Your task to perform on an android device: Toggle the flashlight Image 0: 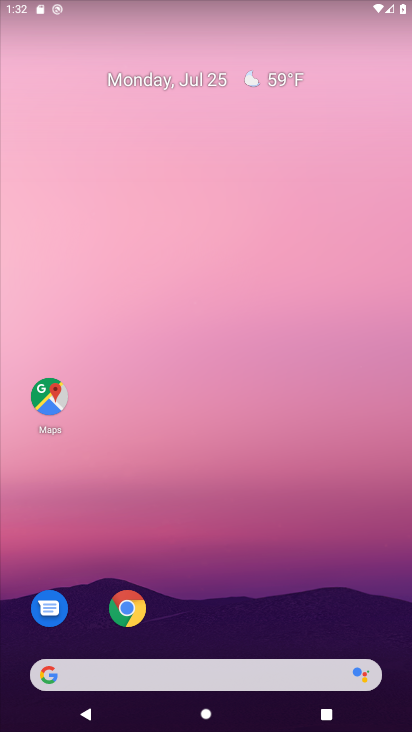
Step 0: drag from (223, 12) to (209, 485)
Your task to perform on an android device: Toggle the flashlight Image 1: 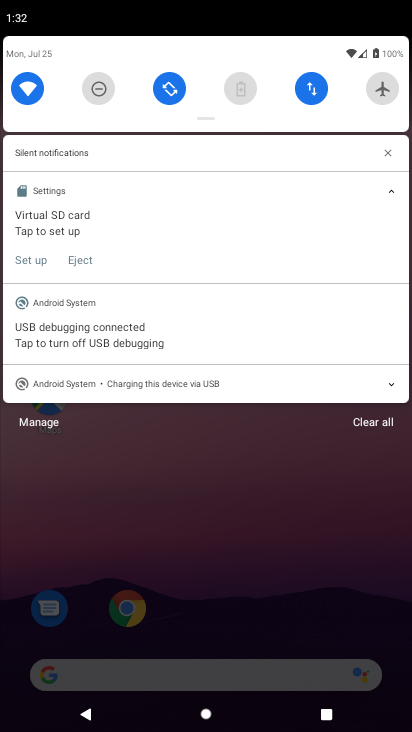
Step 1: drag from (208, 121) to (205, 411)
Your task to perform on an android device: Toggle the flashlight Image 2: 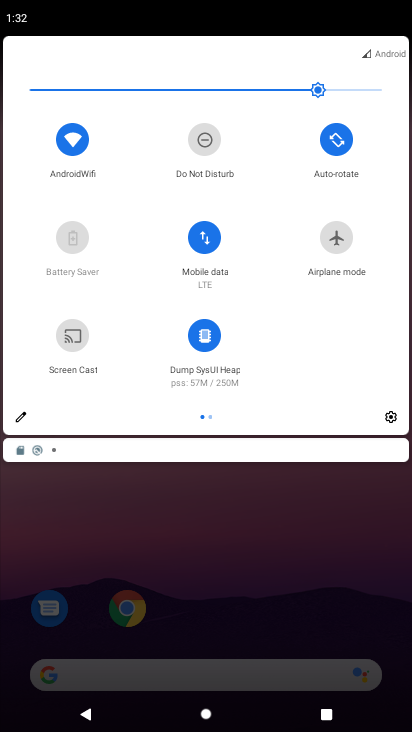
Step 2: click (20, 414)
Your task to perform on an android device: Toggle the flashlight Image 3: 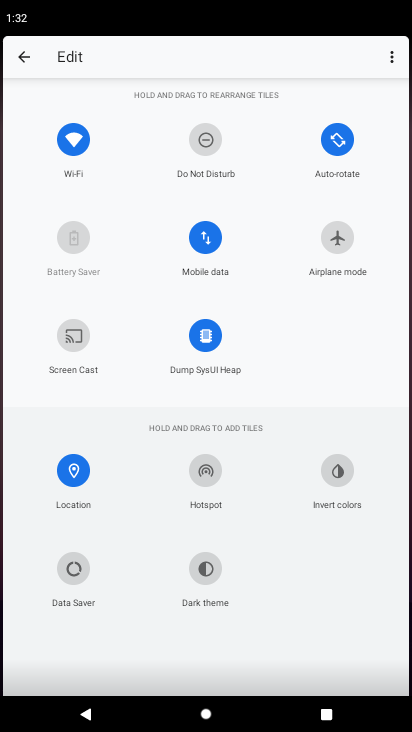
Step 3: task complete